Your task to perform on an android device: see tabs open on other devices in the chrome app Image 0: 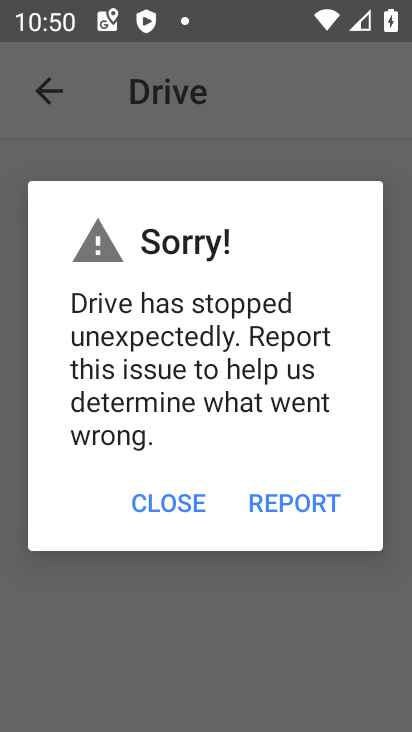
Step 0: click (168, 506)
Your task to perform on an android device: see tabs open on other devices in the chrome app Image 1: 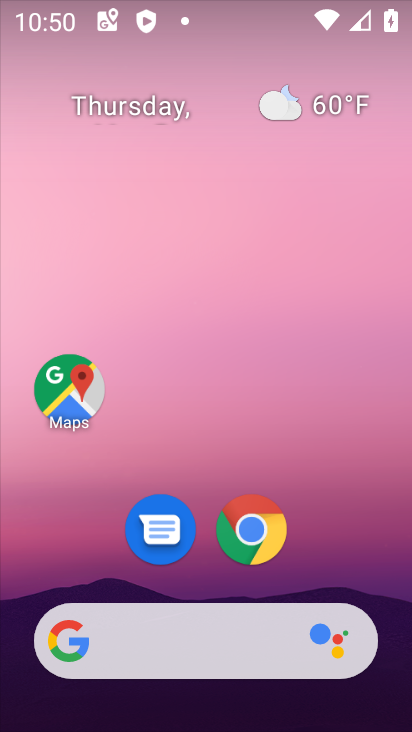
Step 1: click (251, 521)
Your task to perform on an android device: see tabs open on other devices in the chrome app Image 2: 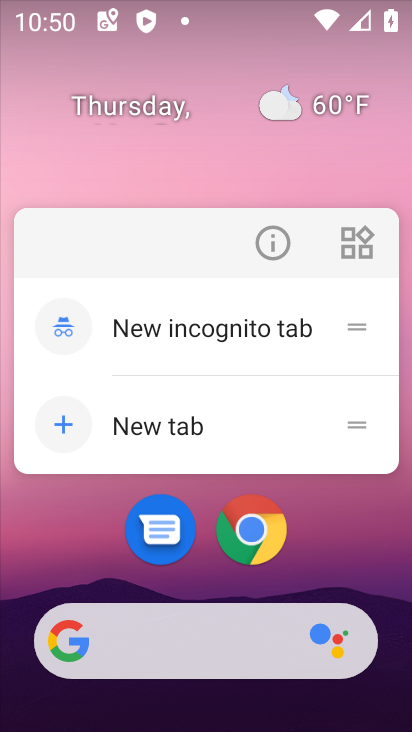
Step 2: click (191, 420)
Your task to perform on an android device: see tabs open on other devices in the chrome app Image 3: 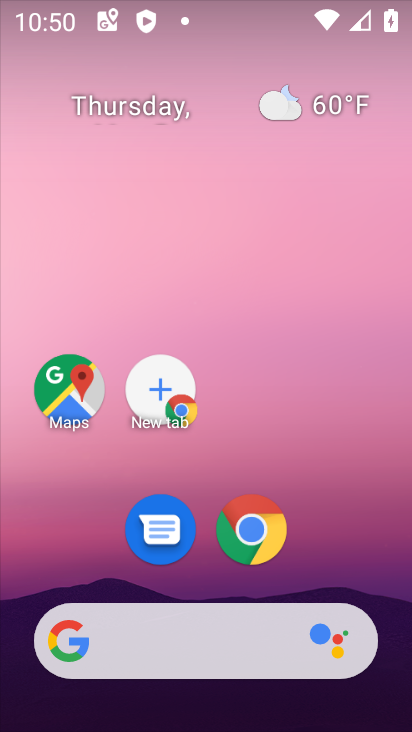
Step 3: click (259, 526)
Your task to perform on an android device: see tabs open on other devices in the chrome app Image 4: 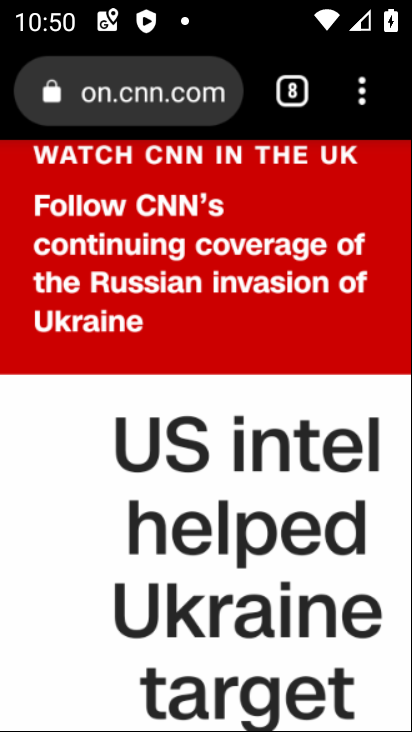
Step 4: click (269, 527)
Your task to perform on an android device: see tabs open on other devices in the chrome app Image 5: 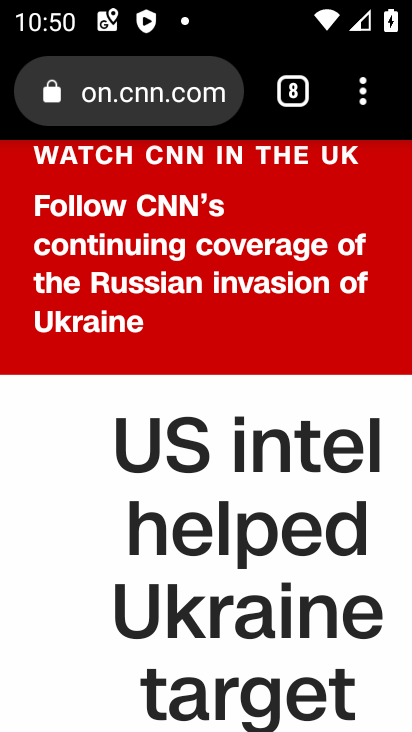
Step 5: drag from (360, 85) to (173, 453)
Your task to perform on an android device: see tabs open on other devices in the chrome app Image 6: 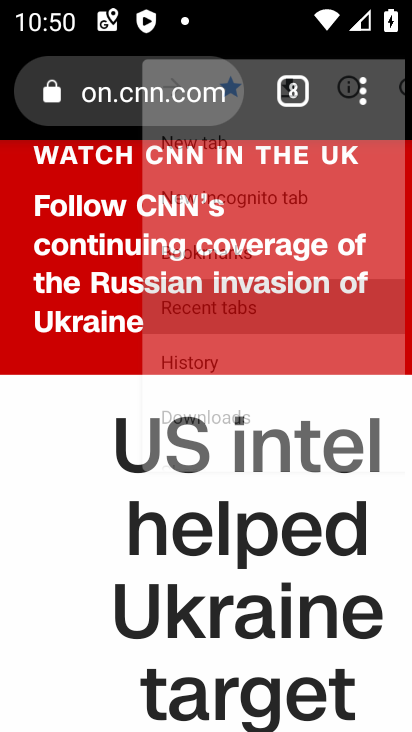
Step 6: click (175, 449)
Your task to perform on an android device: see tabs open on other devices in the chrome app Image 7: 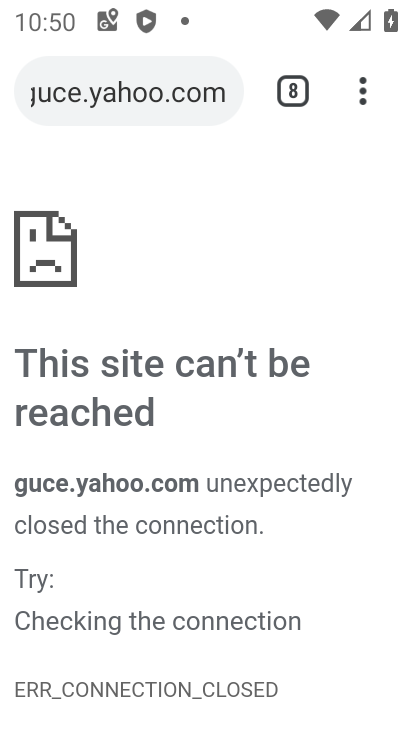
Step 7: task complete